Your task to perform on an android device: Open Youtube and go to the subscriptions tab Image 0: 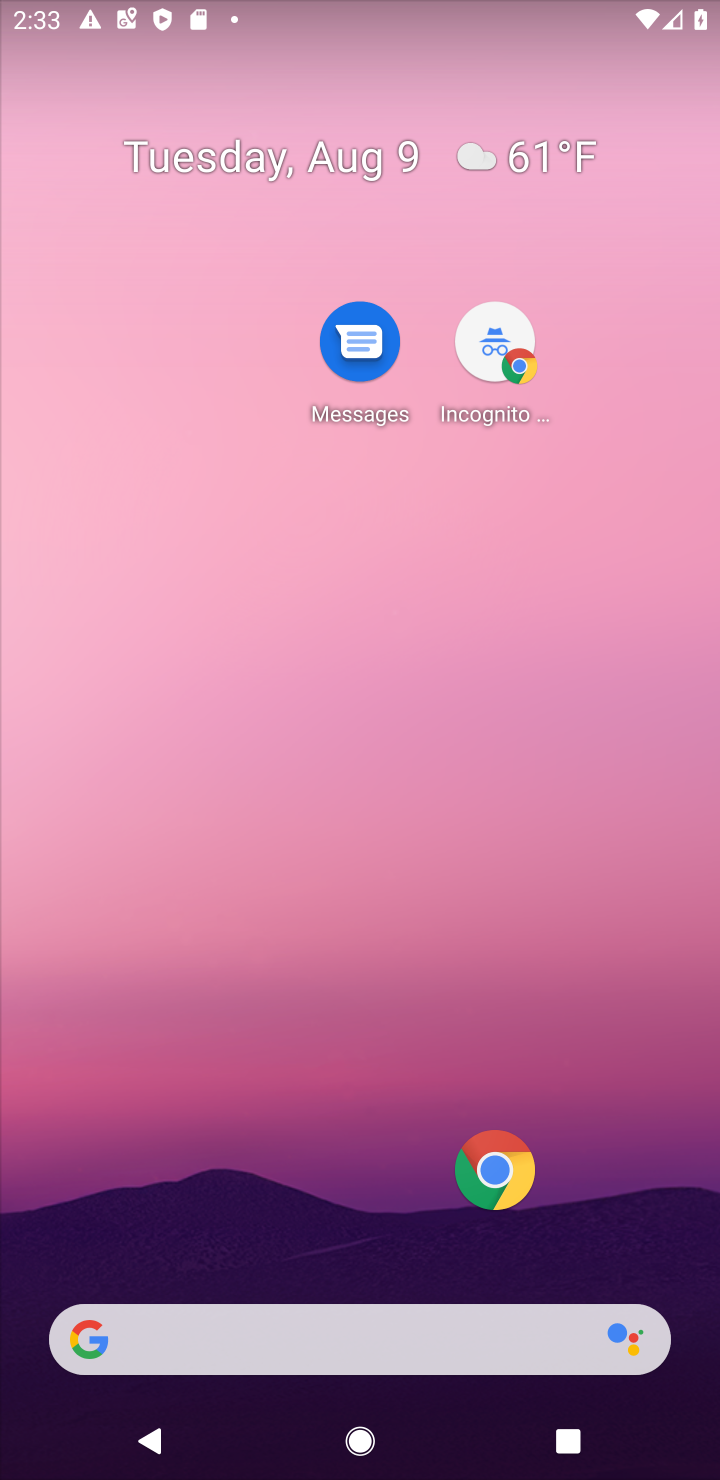
Step 0: drag from (400, 416) to (283, 400)
Your task to perform on an android device: Open Youtube and go to the subscriptions tab Image 1: 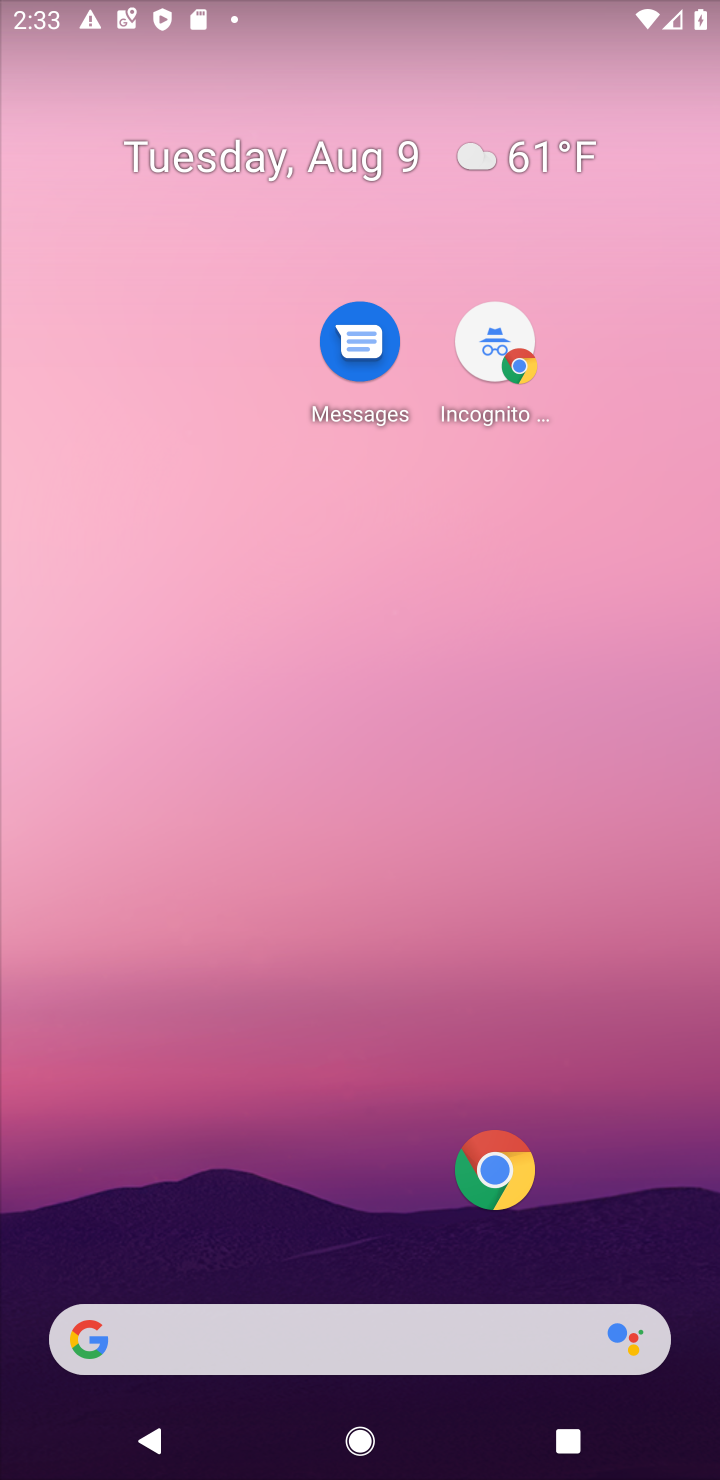
Step 1: drag from (234, 1203) to (384, 130)
Your task to perform on an android device: Open Youtube and go to the subscriptions tab Image 2: 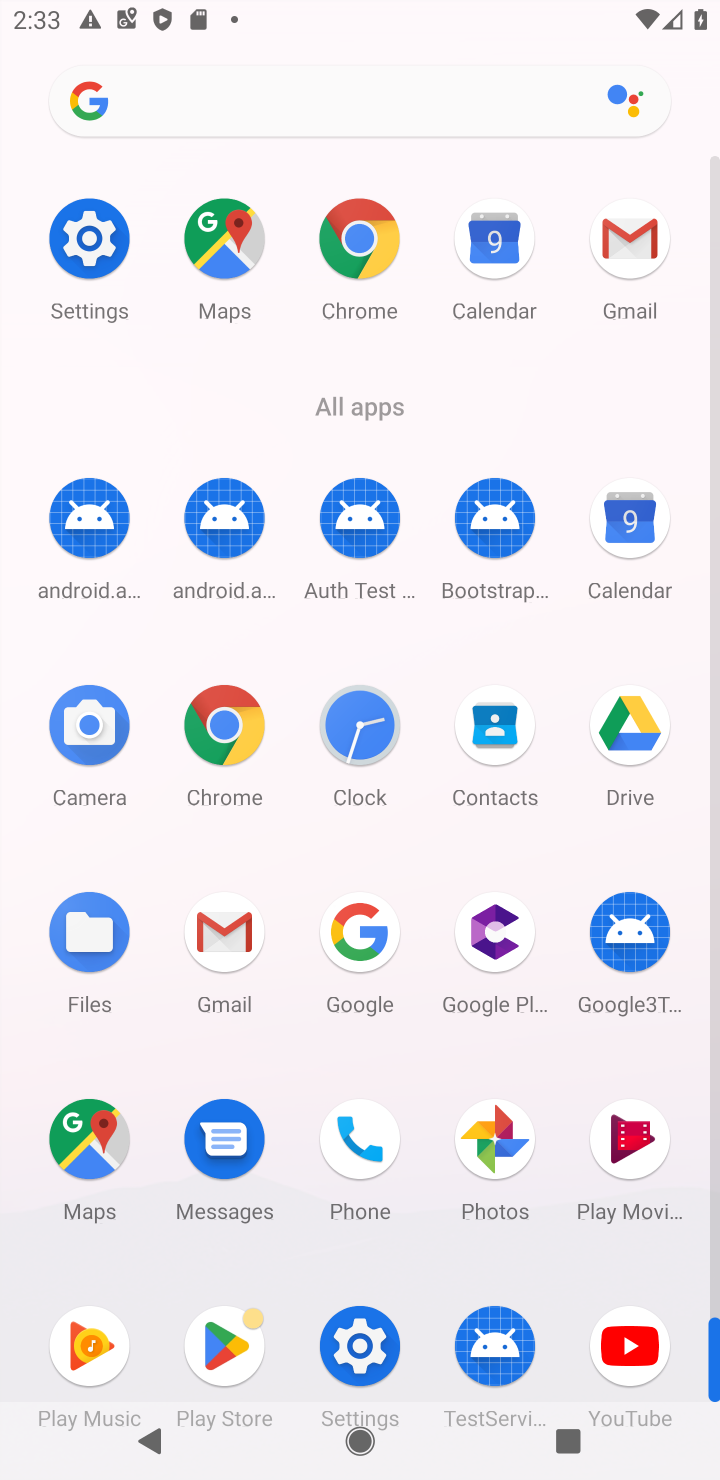
Step 2: click (631, 1344)
Your task to perform on an android device: Open Youtube and go to the subscriptions tab Image 3: 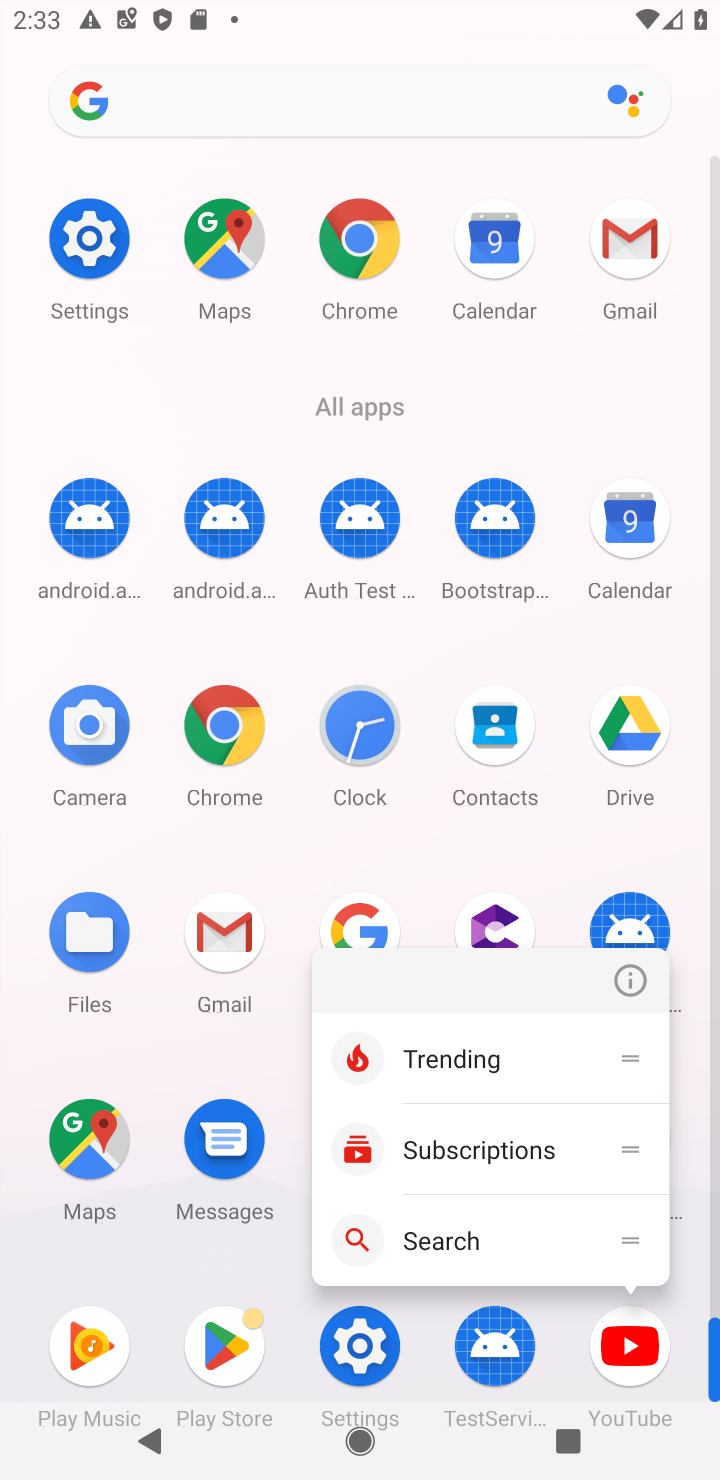
Step 3: click (631, 1344)
Your task to perform on an android device: Open Youtube and go to the subscriptions tab Image 4: 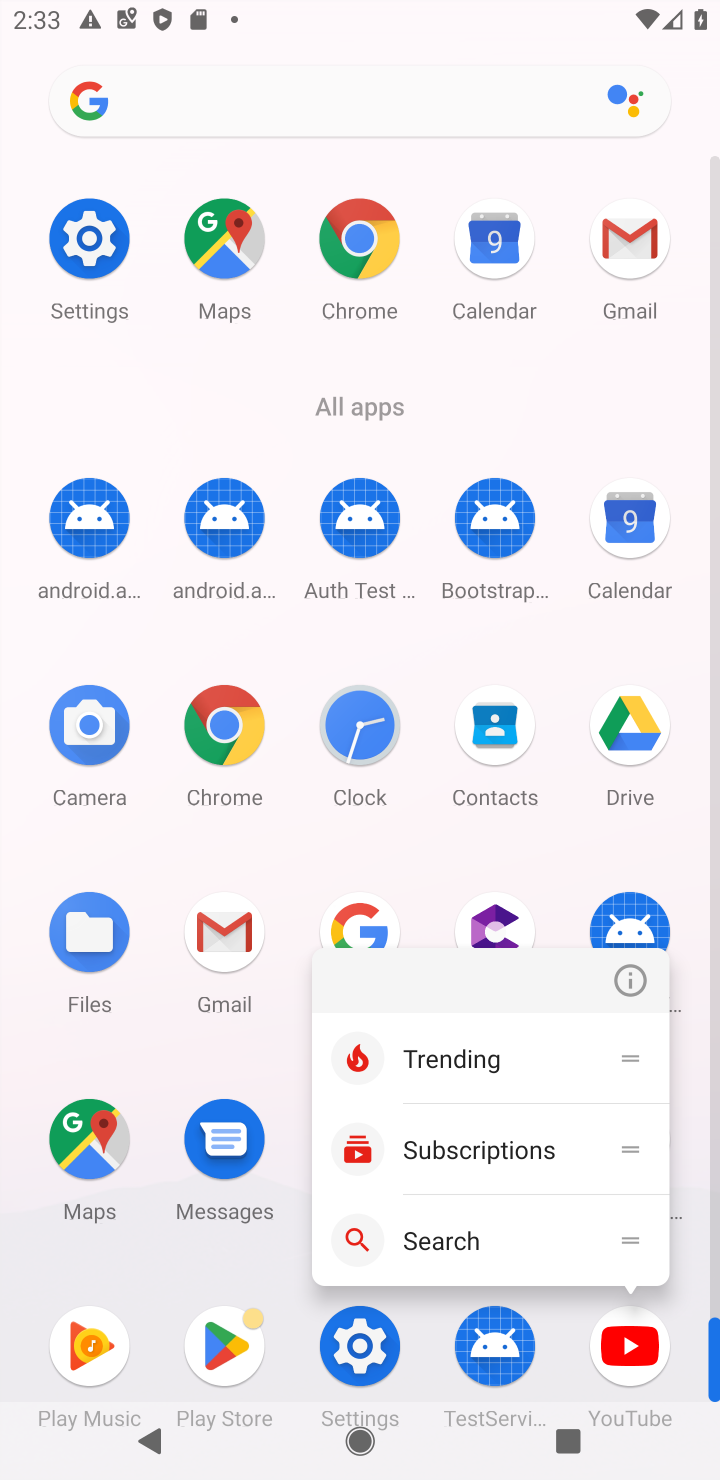
Step 4: click (633, 1345)
Your task to perform on an android device: Open Youtube and go to the subscriptions tab Image 5: 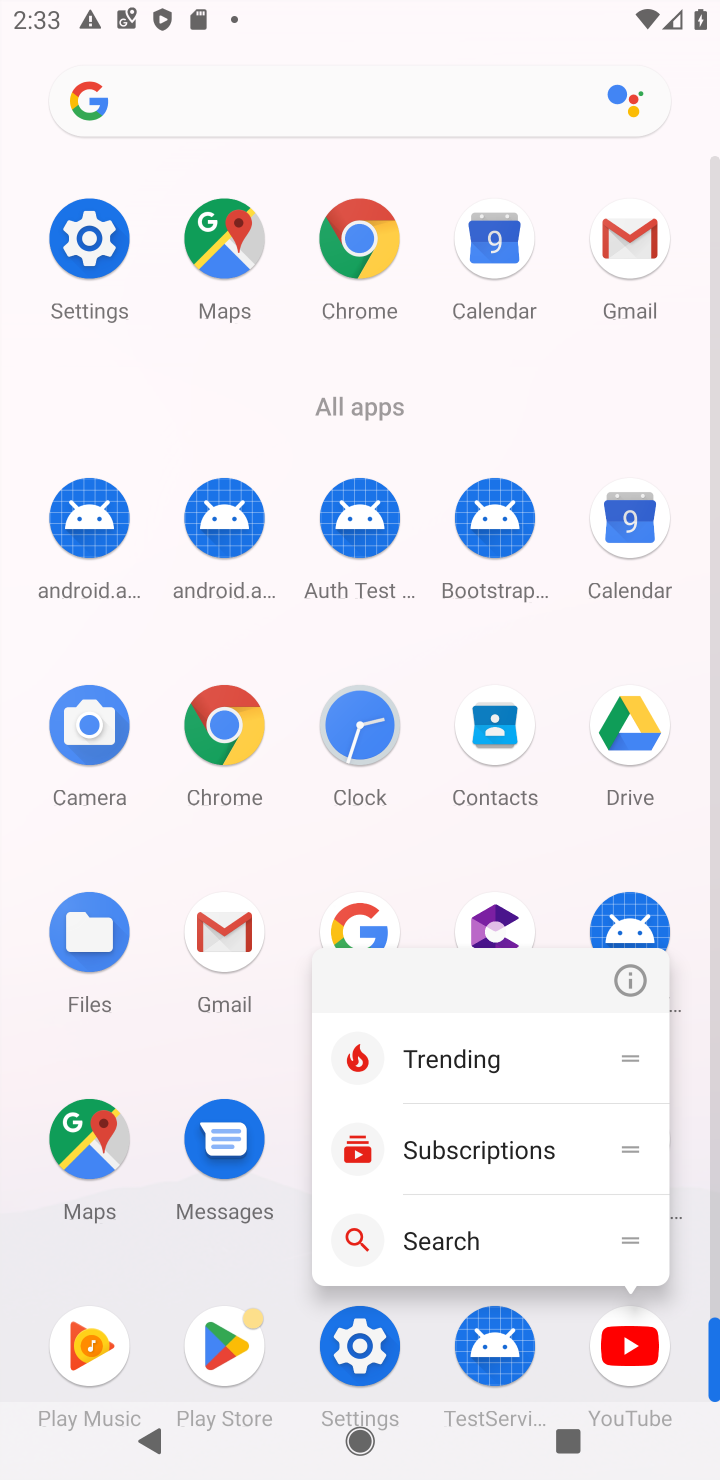
Step 5: click (649, 1366)
Your task to perform on an android device: Open Youtube and go to the subscriptions tab Image 6: 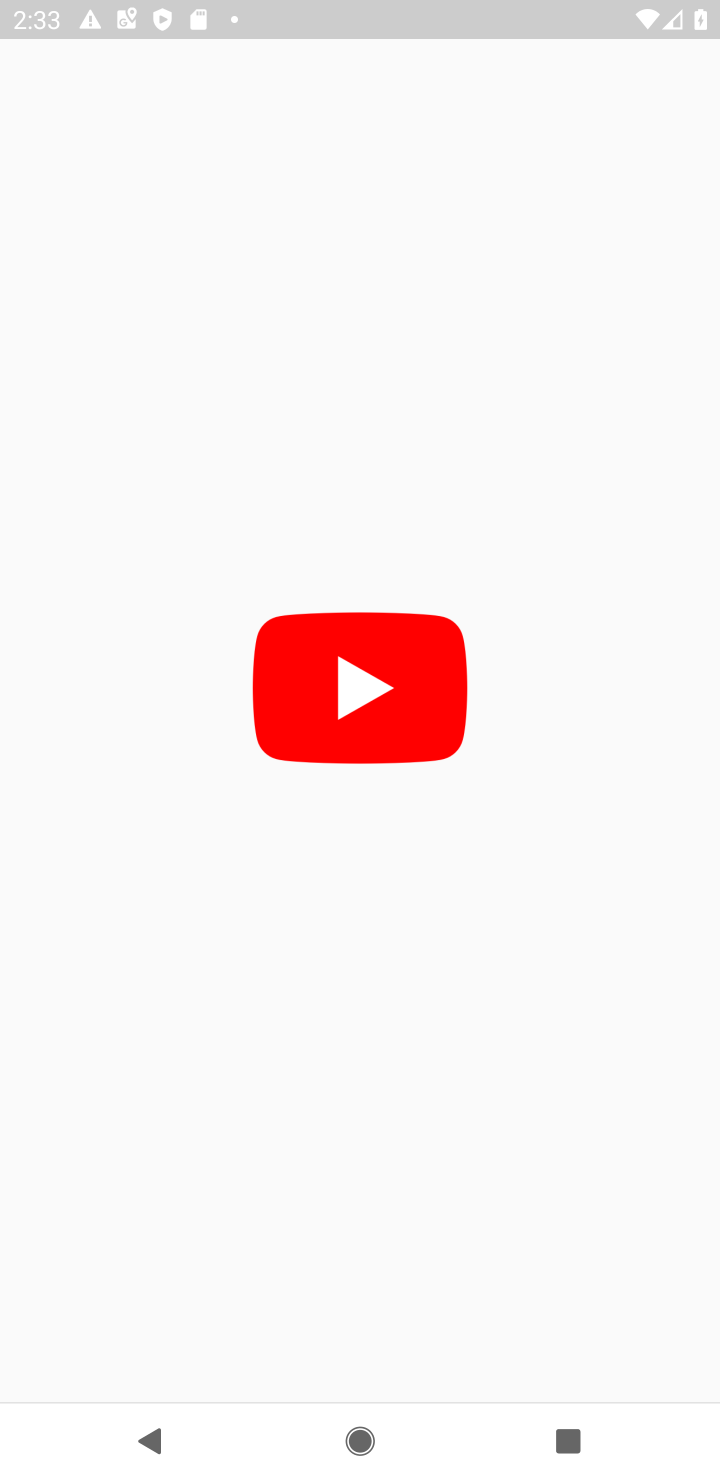
Step 6: click (649, 1366)
Your task to perform on an android device: Open Youtube and go to the subscriptions tab Image 7: 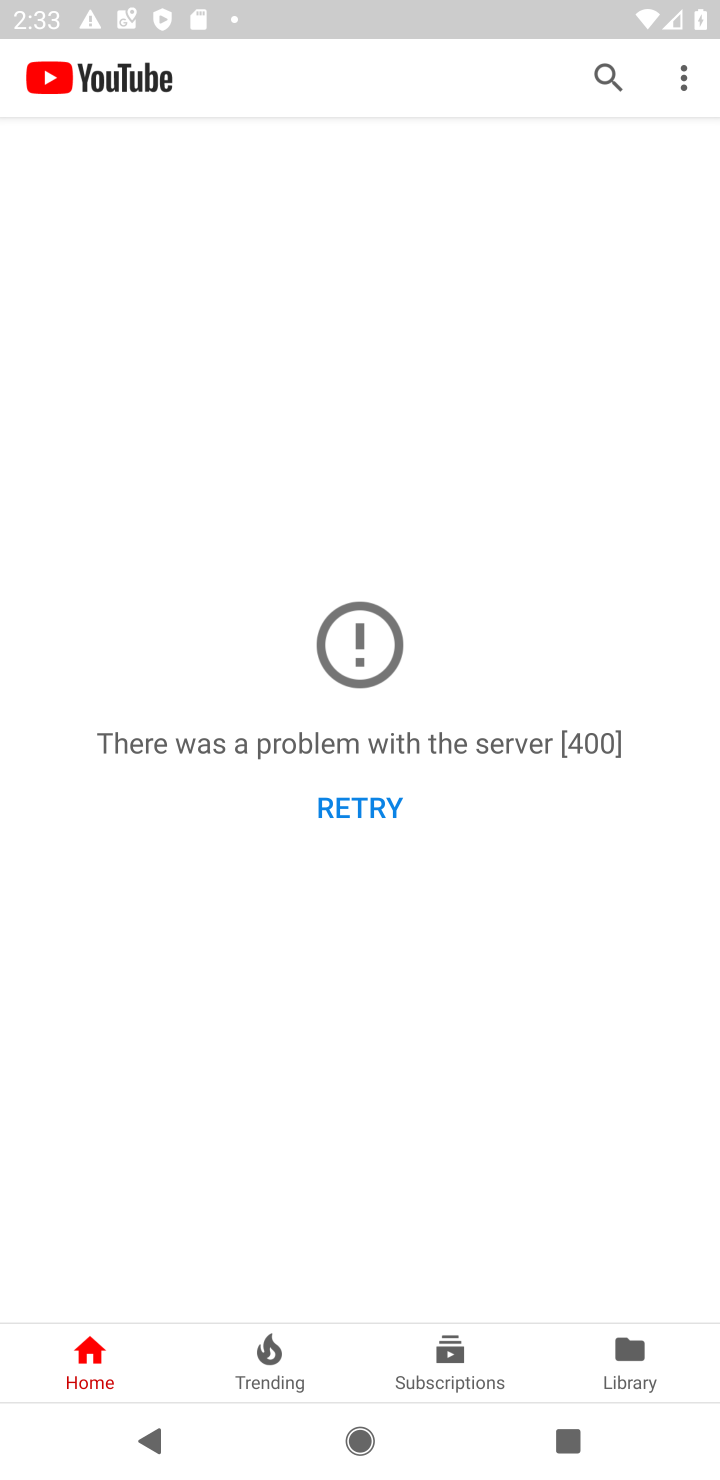
Step 7: click (424, 1366)
Your task to perform on an android device: Open Youtube and go to the subscriptions tab Image 8: 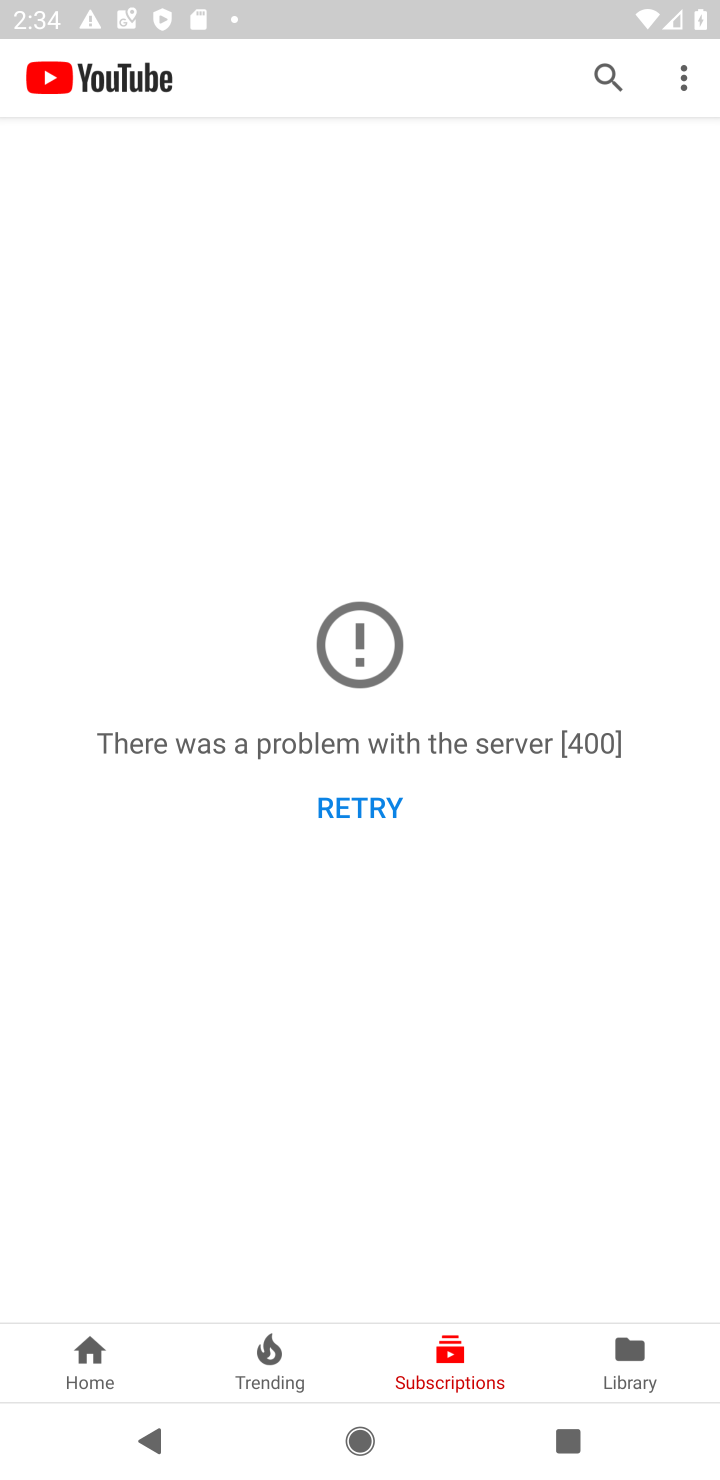
Step 8: click (343, 830)
Your task to perform on an android device: Open Youtube and go to the subscriptions tab Image 9: 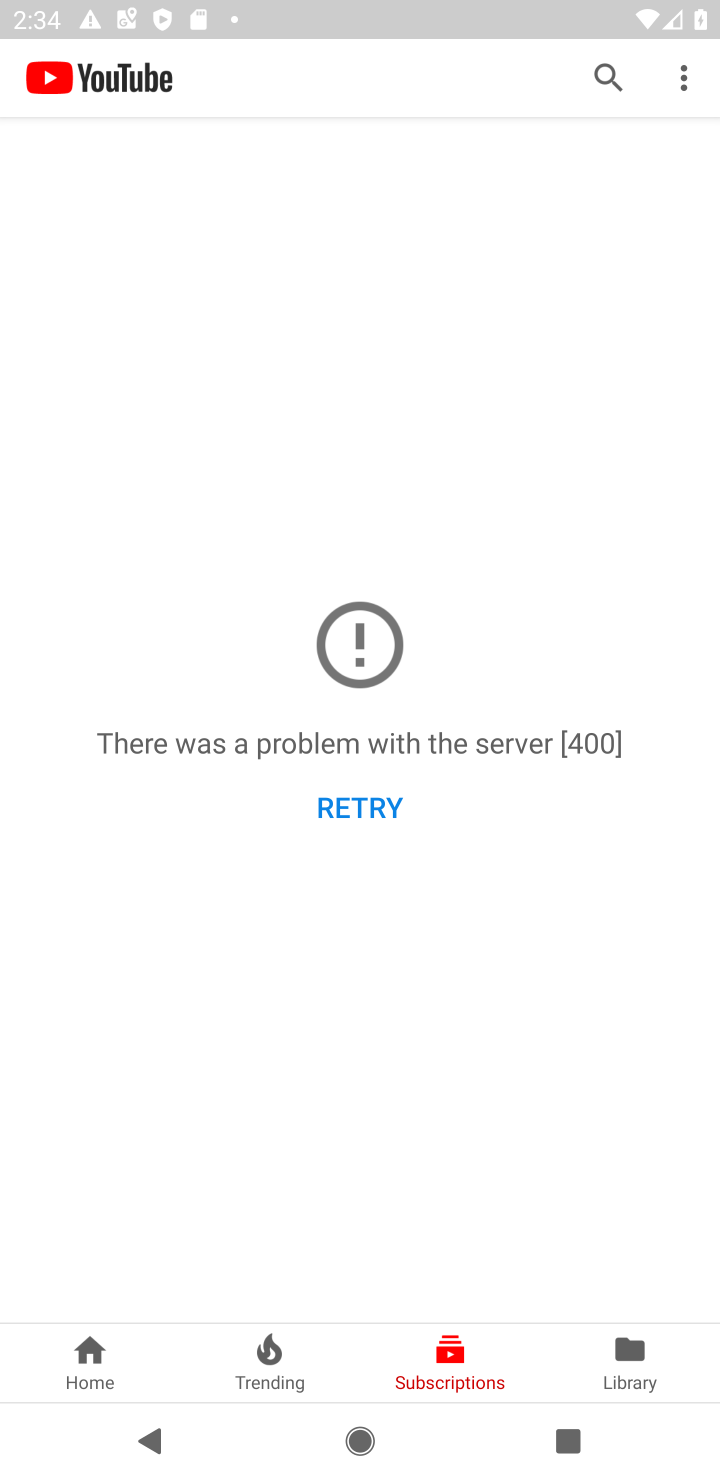
Step 9: click (387, 803)
Your task to perform on an android device: Open Youtube and go to the subscriptions tab Image 10: 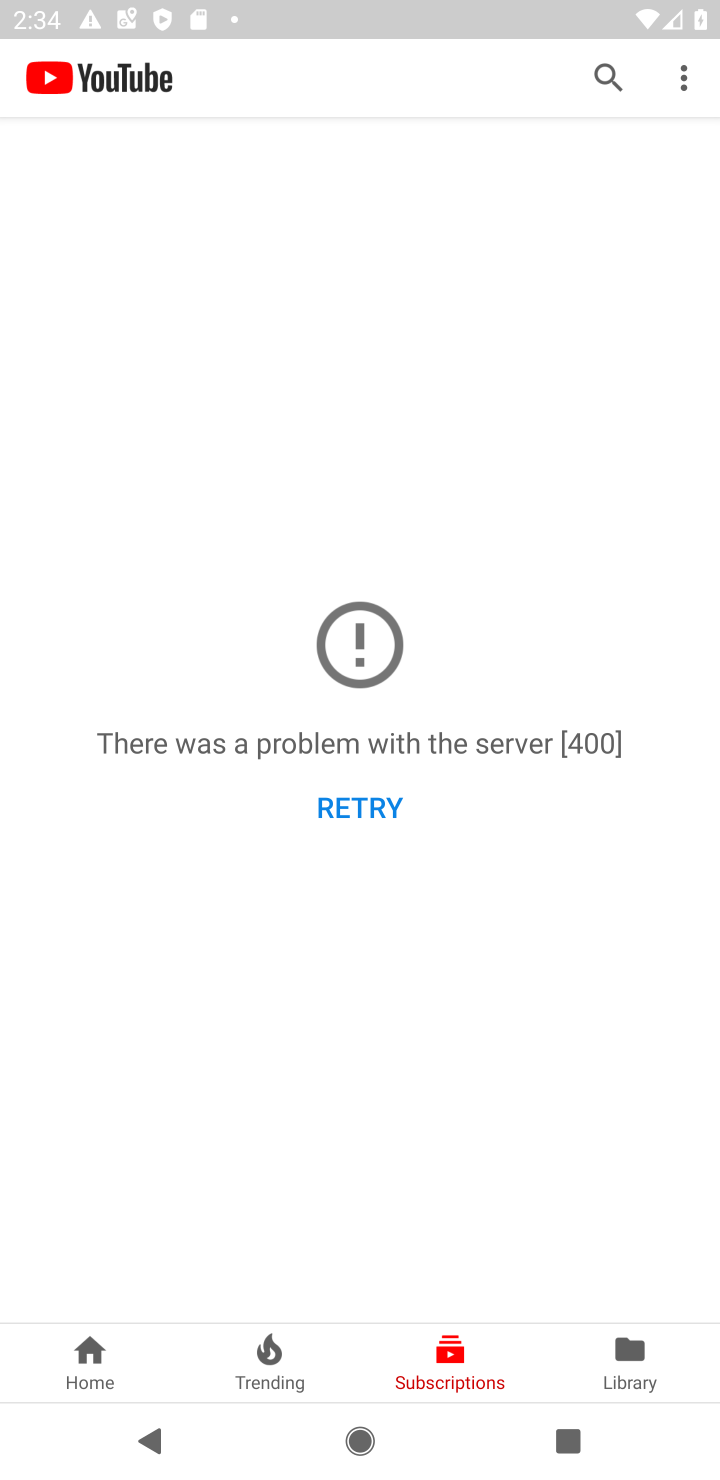
Step 10: task complete